Your task to perform on an android device: see creations saved in the google photos Image 0: 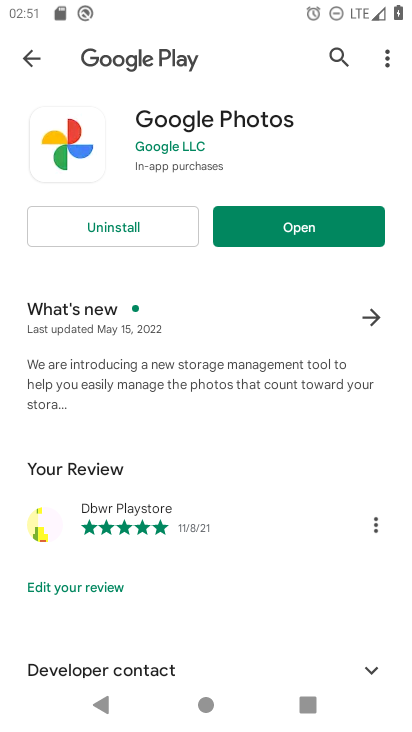
Step 0: press home button
Your task to perform on an android device: see creations saved in the google photos Image 1: 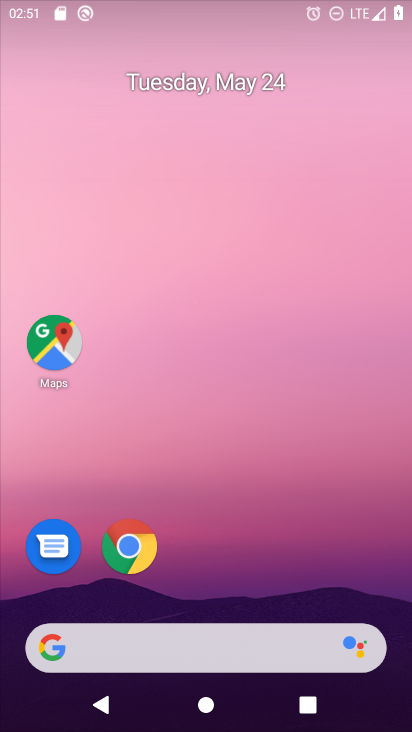
Step 1: drag from (197, 659) to (271, 181)
Your task to perform on an android device: see creations saved in the google photos Image 2: 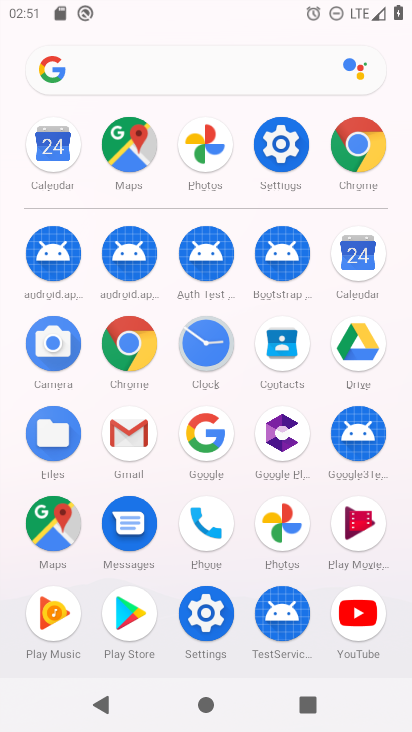
Step 2: click (270, 506)
Your task to perform on an android device: see creations saved in the google photos Image 3: 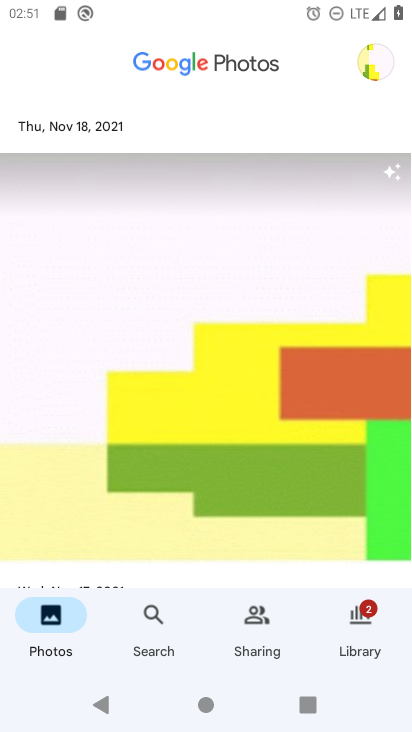
Step 3: click (376, 55)
Your task to perform on an android device: see creations saved in the google photos Image 4: 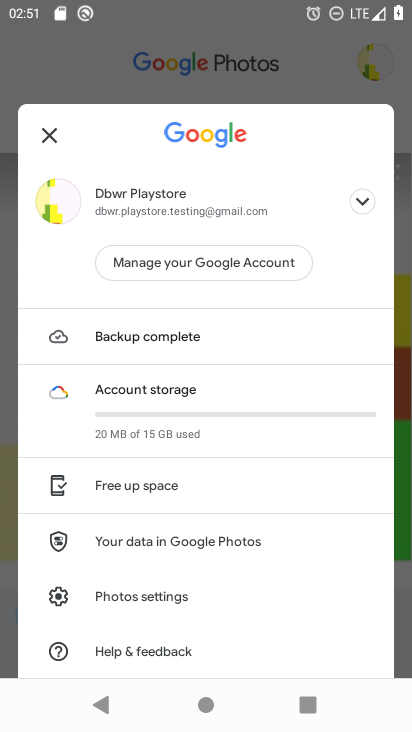
Step 4: task complete